Your task to perform on an android device: Go to network settings Image 0: 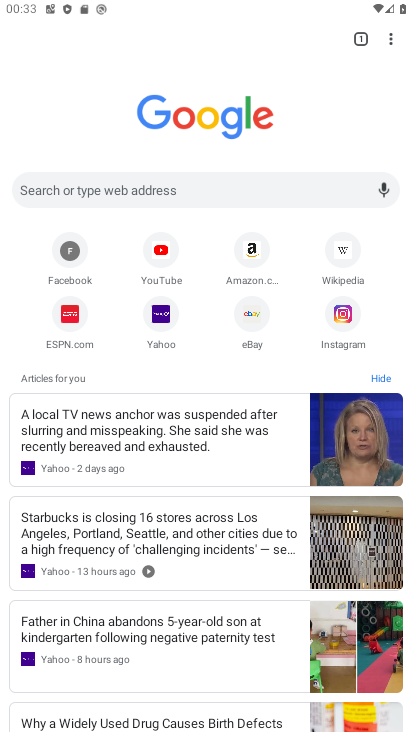
Step 0: press home button
Your task to perform on an android device: Go to network settings Image 1: 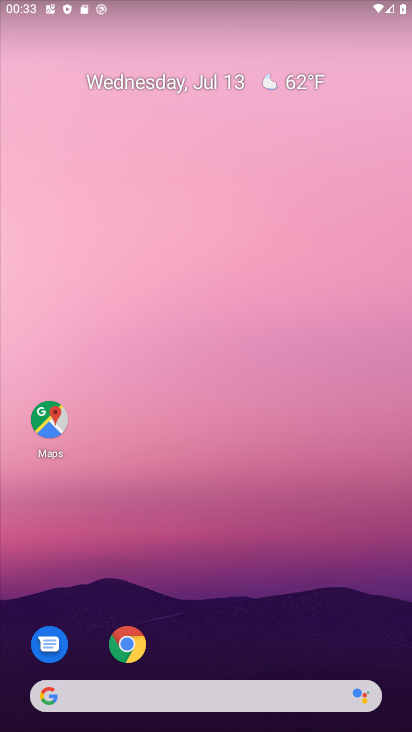
Step 1: drag from (201, 676) to (129, 68)
Your task to perform on an android device: Go to network settings Image 2: 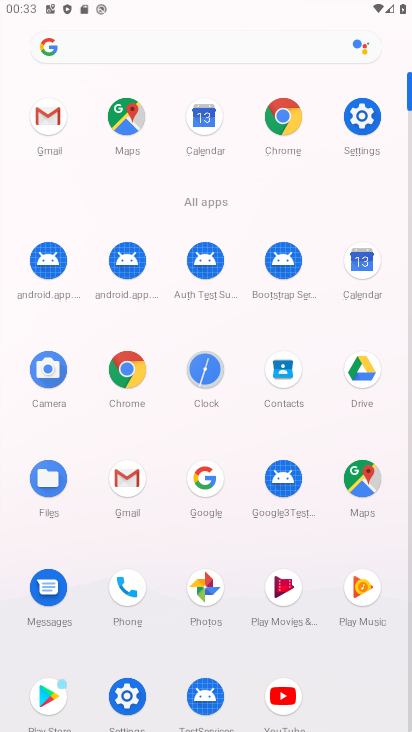
Step 2: click (351, 116)
Your task to perform on an android device: Go to network settings Image 3: 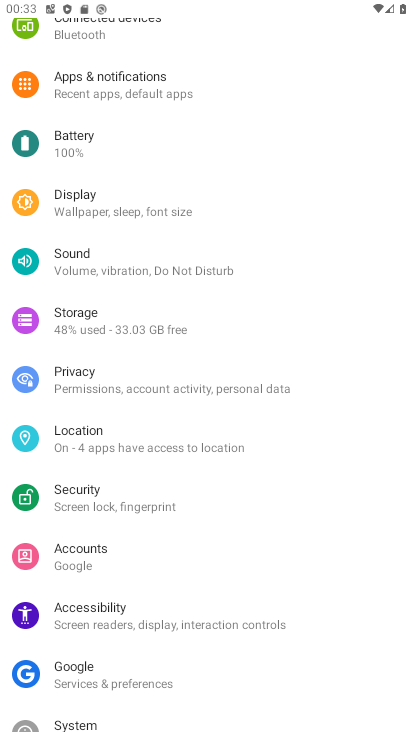
Step 3: drag from (351, 116) to (321, 461)
Your task to perform on an android device: Go to network settings Image 4: 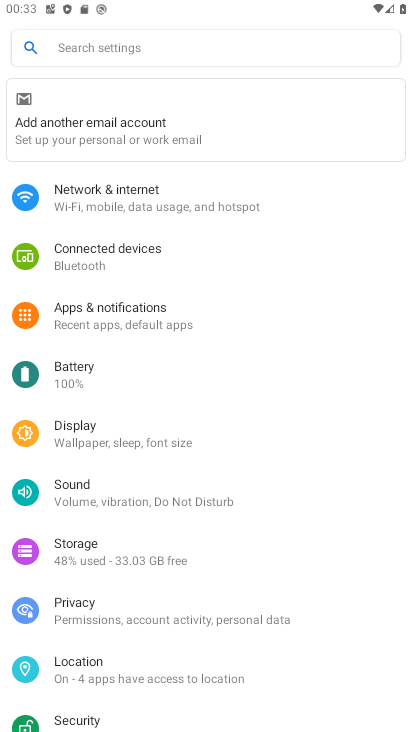
Step 4: click (121, 190)
Your task to perform on an android device: Go to network settings Image 5: 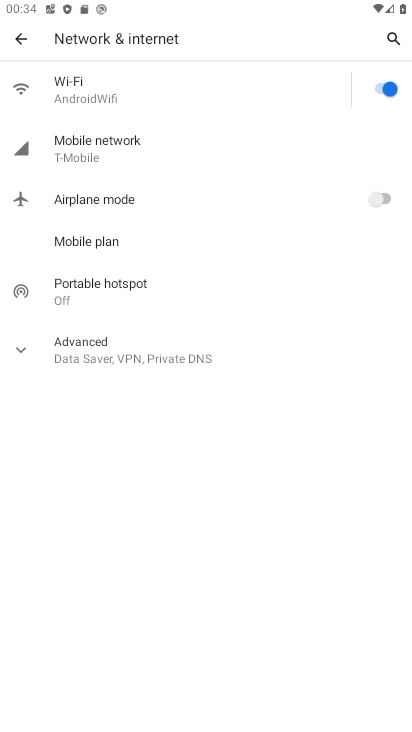
Step 5: click (125, 148)
Your task to perform on an android device: Go to network settings Image 6: 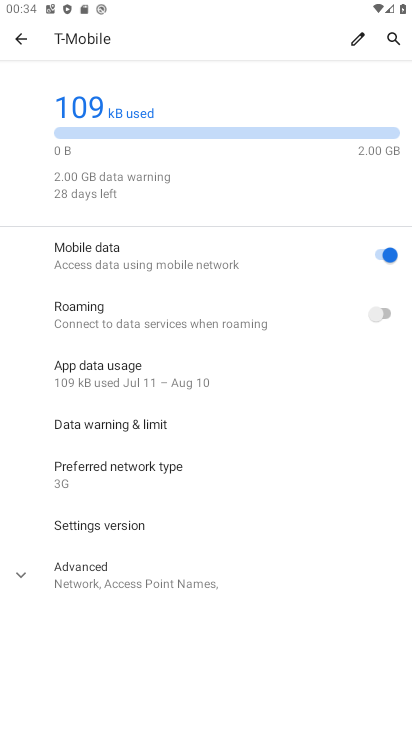
Step 6: task complete